Your task to perform on an android device: add a label to a message in the gmail app Image 0: 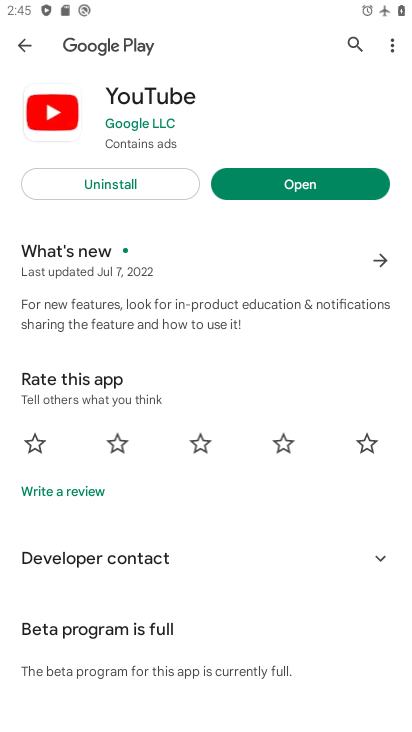
Step 0: press home button
Your task to perform on an android device: add a label to a message in the gmail app Image 1: 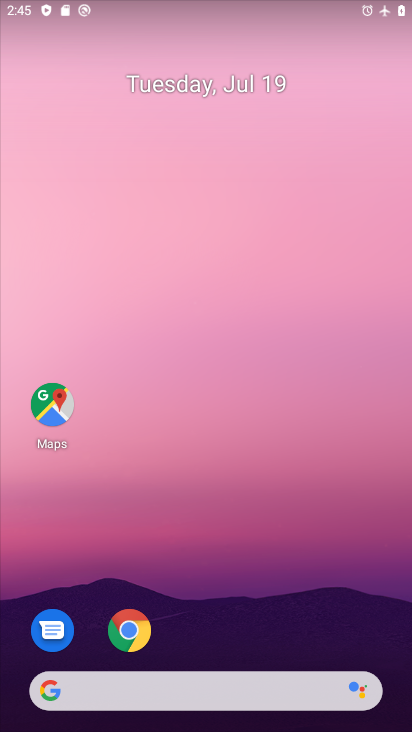
Step 1: drag from (281, 586) to (308, 54)
Your task to perform on an android device: add a label to a message in the gmail app Image 2: 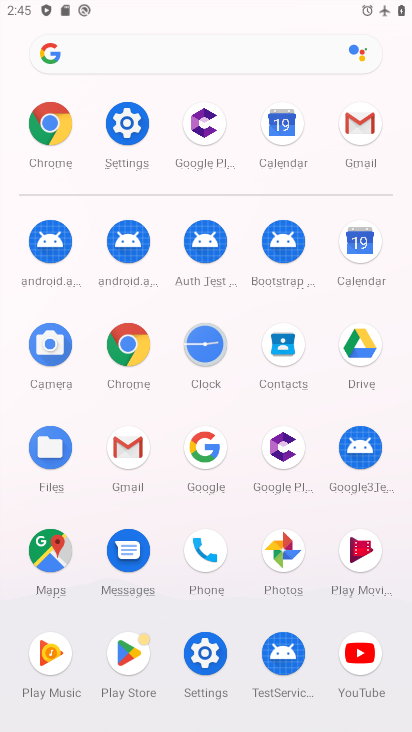
Step 2: click (369, 131)
Your task to perform on an android device: add a label to a message in the gmail app Image 3: 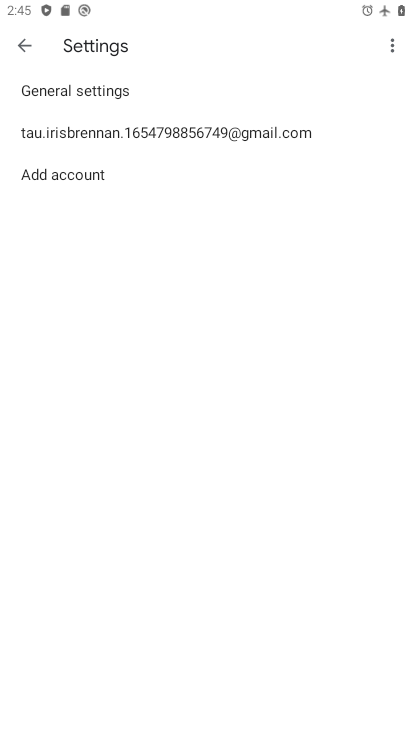
Step 3: click (29, 43)
Your task to perform on an android device: add a label to a message in the gmail app Image 4: 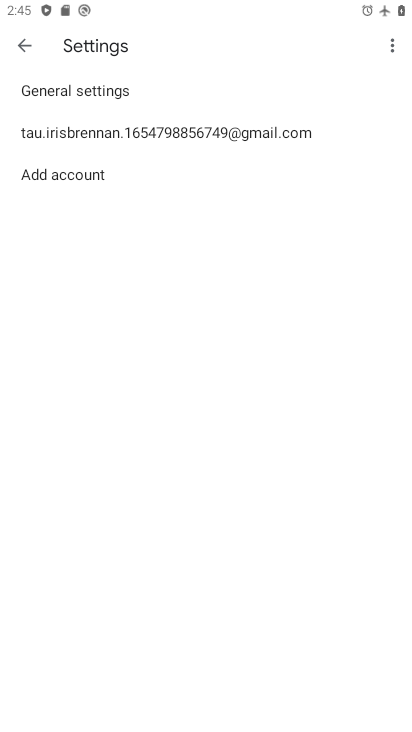
Step 4: click (29, 45)
Your task to perform on an android device: add a label to a message in the gmail app Image 5: 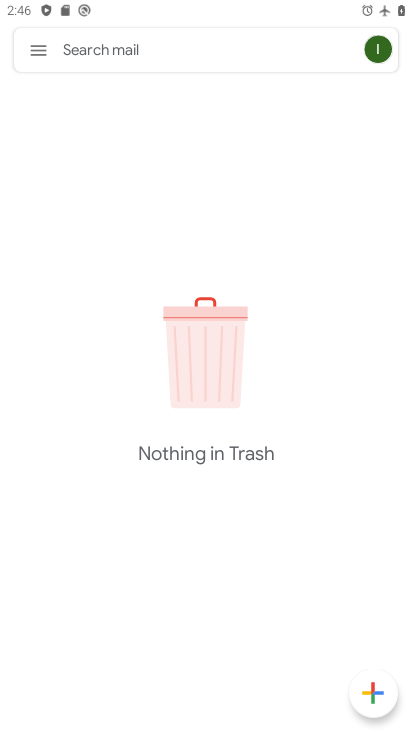
Step 5: click (38, 41)
Your task to perform on an android device: add a label to a message in the gmail app Image 6: 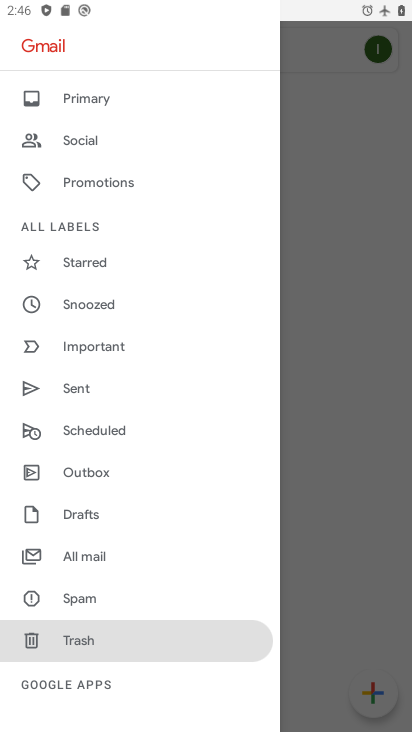
Step 6: click (88, 551)
Your task to perform on an android device: add a label to a message in the gmail app Image 7: 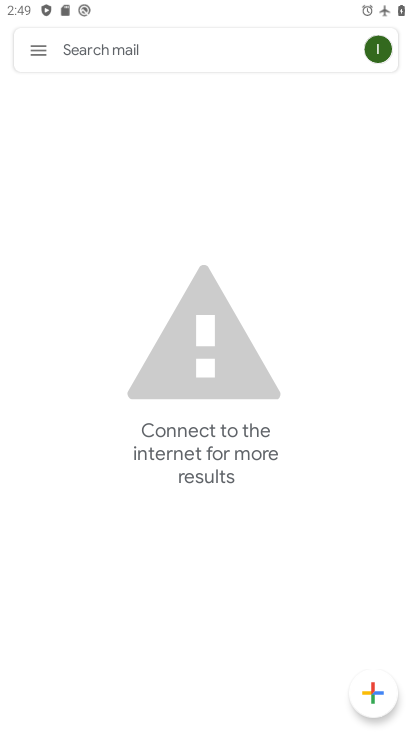
Step 7: task complete